Your task to perform on an android device: Go to wifi settings Image 0: 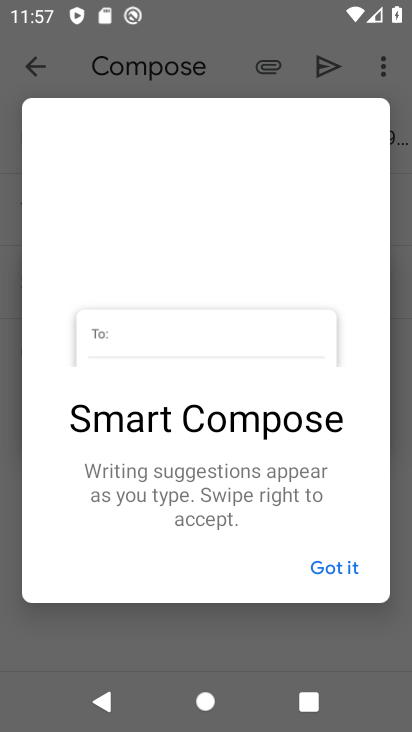
Step 0: press home button
Your task to perform on an android device: Go to wifi settings Image 1: 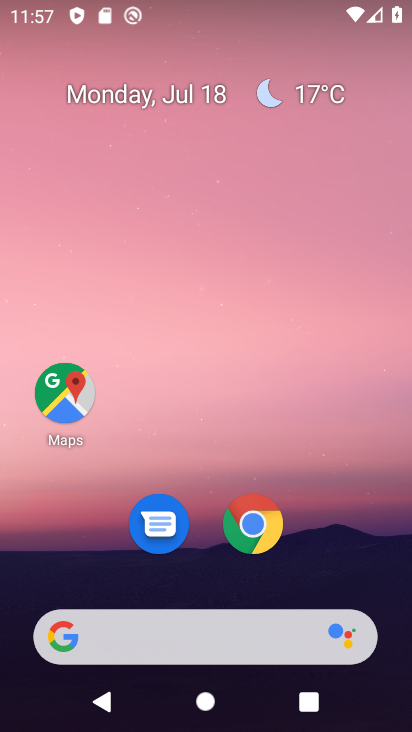
Step 1: drag from (205, 596) to (167, 15)
Your task to perform on an android device: Go to wifi settings Image 2: 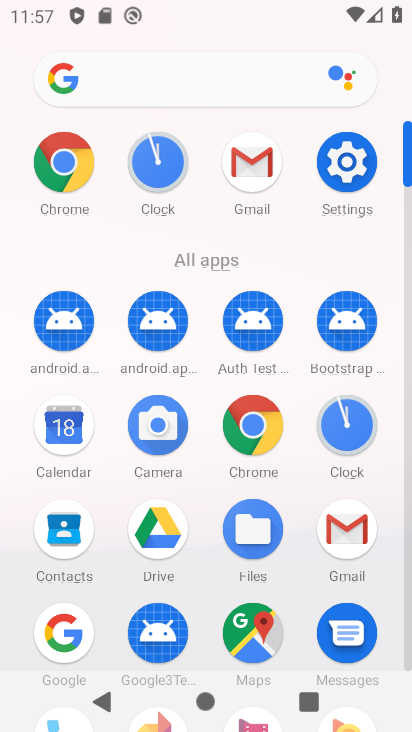
Step 2: click (356, 167)
Your task to perform on an android device: Go to wifi settings Image 3: 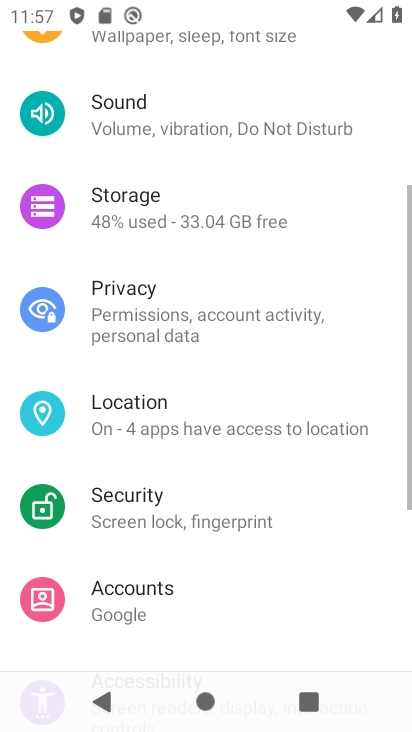
Step 3: drag from (304, 136) to (256, 506)
Your task to perform on an android device: Go to wifi settings Image 4: 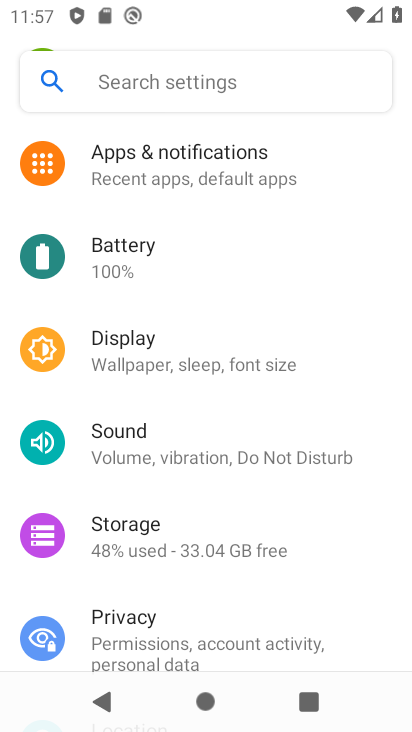
Step 4: drag from (178, 179) to (169, 483)
Your task to perform on an android device: Go to wifi settings Image 5: 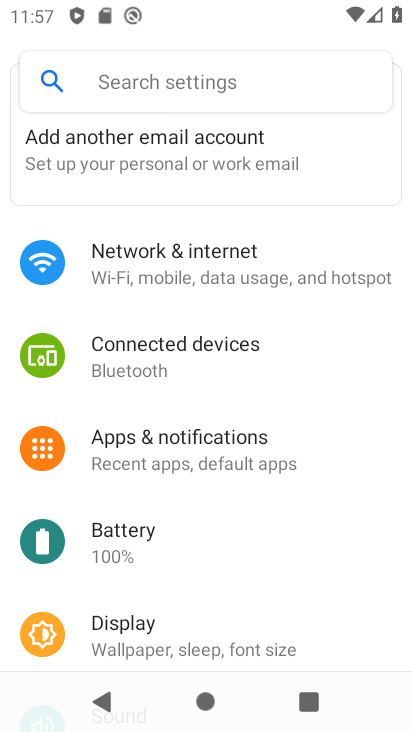
Step 5: click (151, 263)
Your task to perform on an android device: Go to wifi settings Image 6: 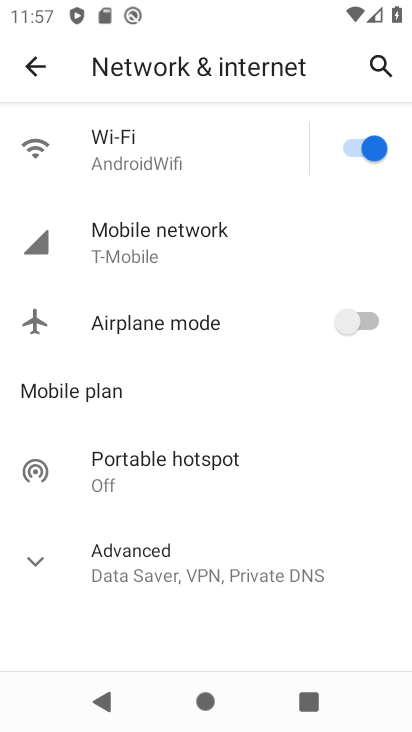
Step 6: click (277, 156)
Your task to perform on an android device: Go to wifi settings Image 7: 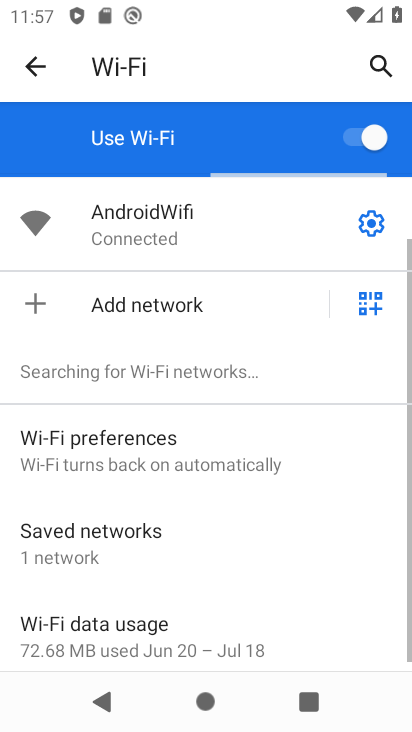
Step 7: task complete